Your task to perform on an android device: Search for sushi restaurants on Maps Image 0: 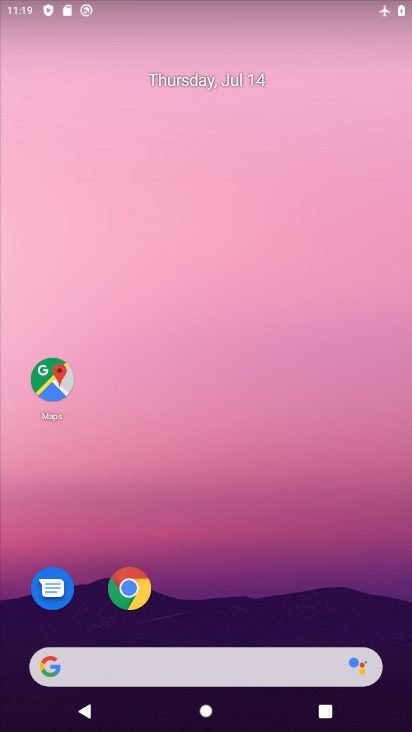
Step 0: drag from (204, 592) to (246, 0)
Your task to perform on an android device: Search for sushi restaurants on Maps Image 1: 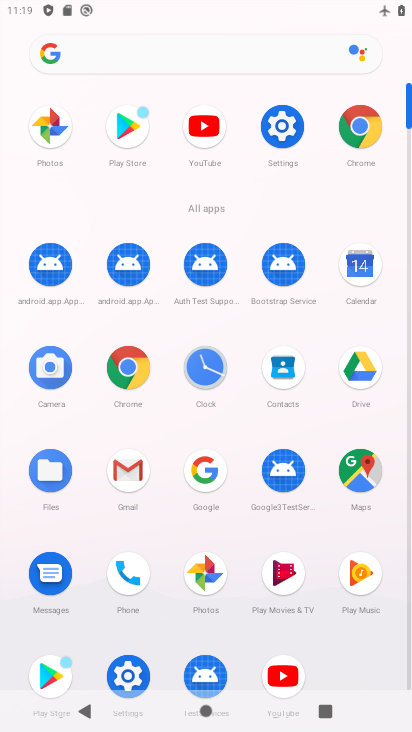
Step 1: click (353, 476)
Your task to perform on an android device: Search for sushi restaurants on Maps Image 2: 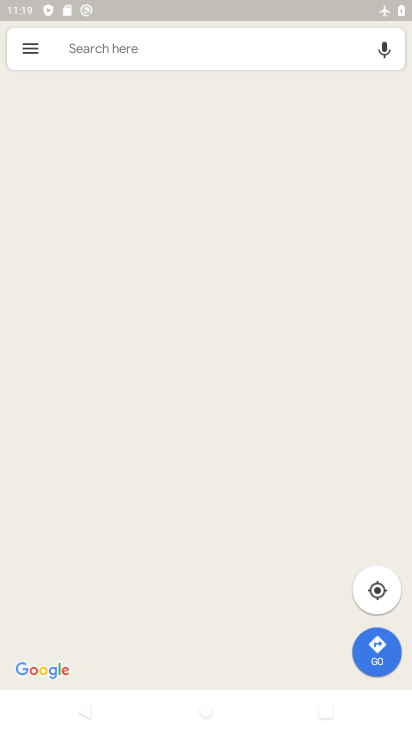
Step 2: click (190, 45)
Your task to perform on an android device: Search for sushi restaurants on Maps Image 3: 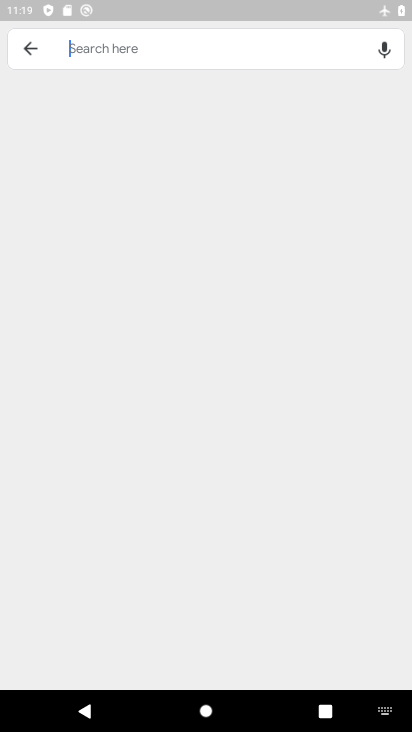
Step 3: type "sushi restaurants"
Your task to perform on an android device: Search for sushi restaurants on Maps Image 4: 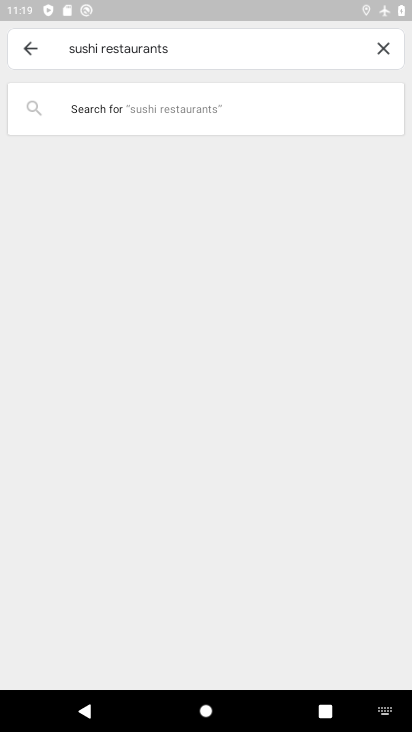
Step 4: click (178, 120)
Your task to perform on an android device: Search for sushi restaurants on Maps Image 5: 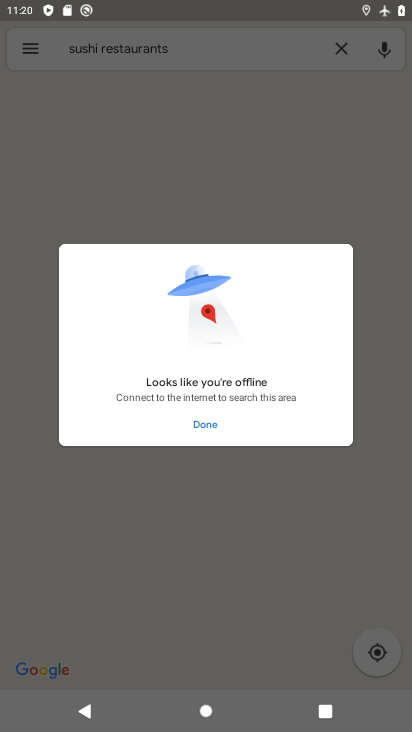
Step 5: click (196, 428)
Your task to perform on an android device: Search for sushi restaurants on Maps Image 6: 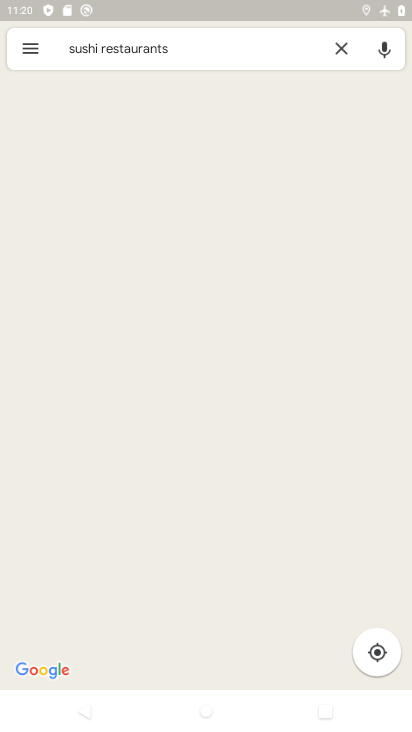
Step 6: task complete